Your task to perform on an android device: Go to CNN.com Image 0: 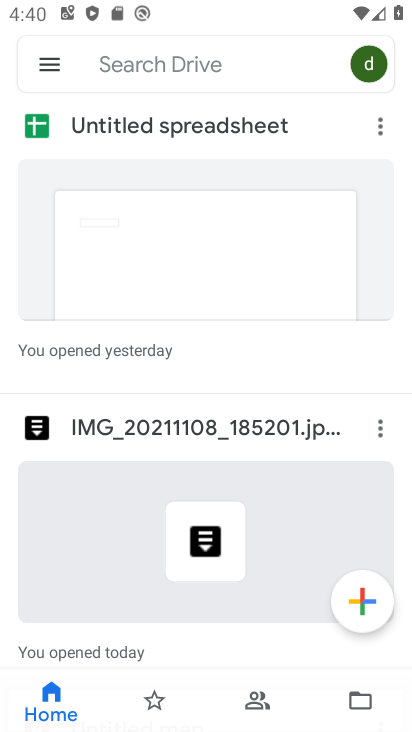
Step 0: press home button
Your task to perform on an android device: Go to CNN.com Image 1: 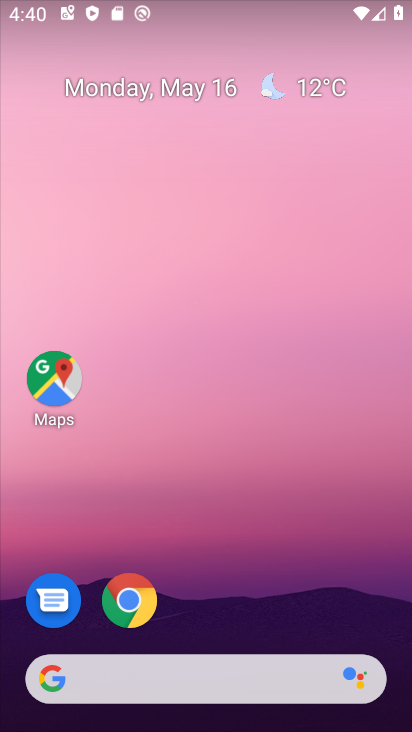
Step 1: drag from (148, 651) to (108, 300)
Your task to perform on an android device: Go to CNN.com Image 2: 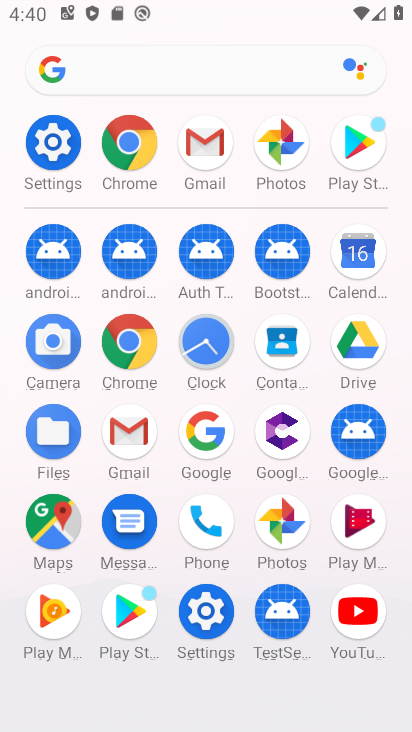
Step 2: click (202, 429)
Your task to perform on an android device: Go to CNN.com Image 3: 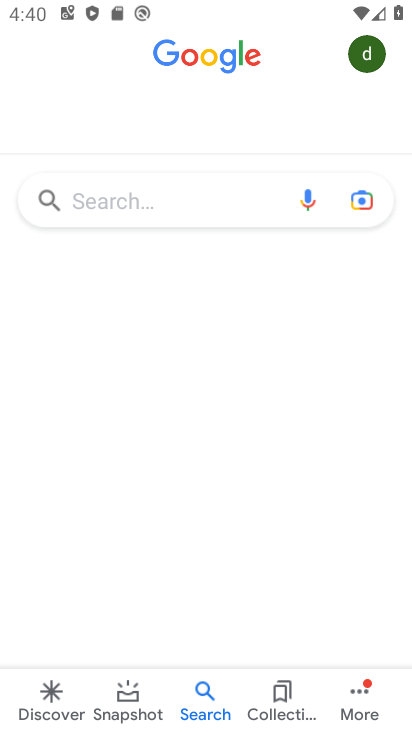
Step 3: click (139, 205)
Your task to perform on an android device: Go to CNN.com Image 4: 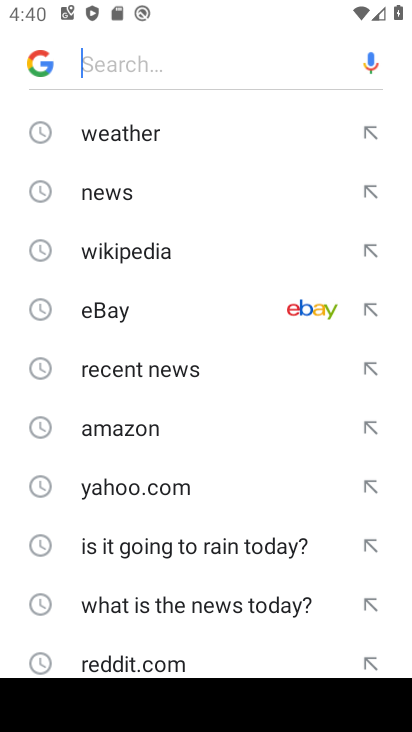
Step 4: drag from (193, 649) to (149, 296)
Your task to perform on an android device: Go to CNN.com Image 5: 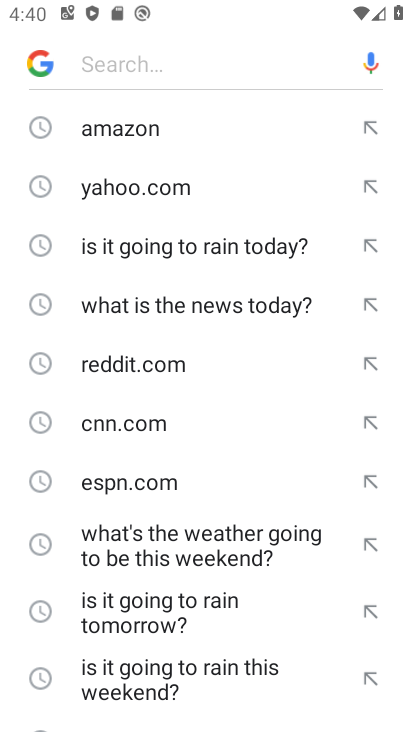
Step 5: drag from (169, 705) to (153, 421)
Your task to perform on an android device: Go to CNN.com Image 6: 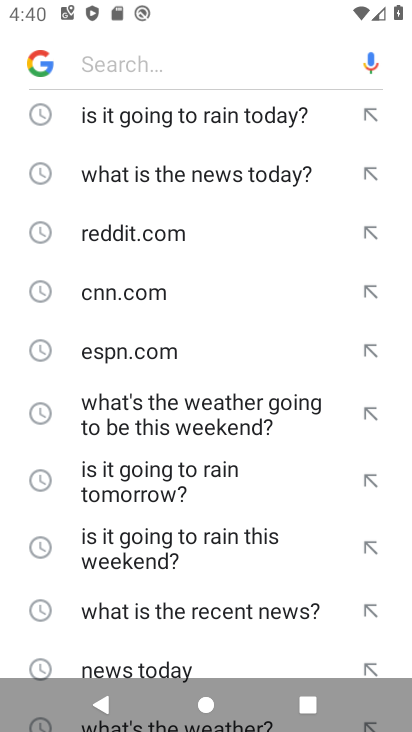
Step 6: click (117, 284)
Your task to perform on an android device: Go to CNN.com Image 7: 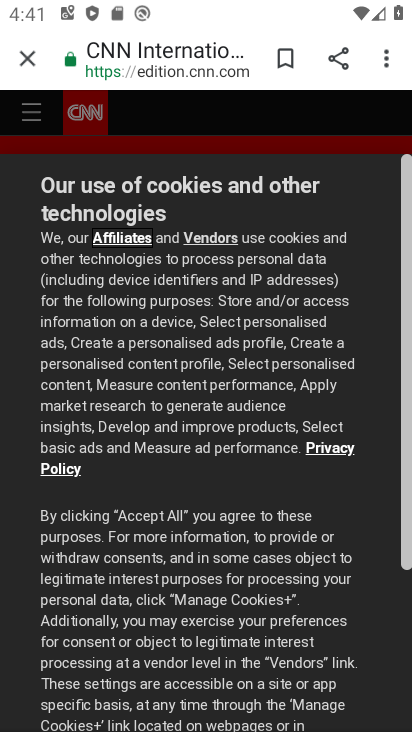
Step 7: task complete